Your task to perform on an android device: toggle show notifications on the lock screen Image 0: 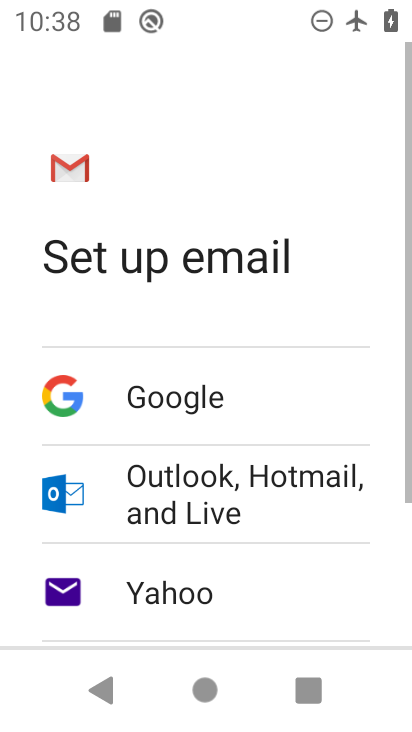
Step 0: press home button
Your task to perform on an android device: toggle show notifications on the lock screen Image 1: 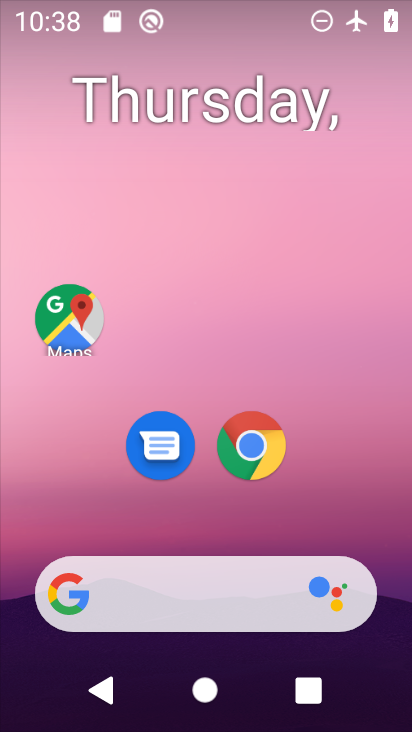
Step 1: drag from (220, 538) to (148, 6)
Your task to perform on an android device: toggle show notifications on the lock screen Image 2: 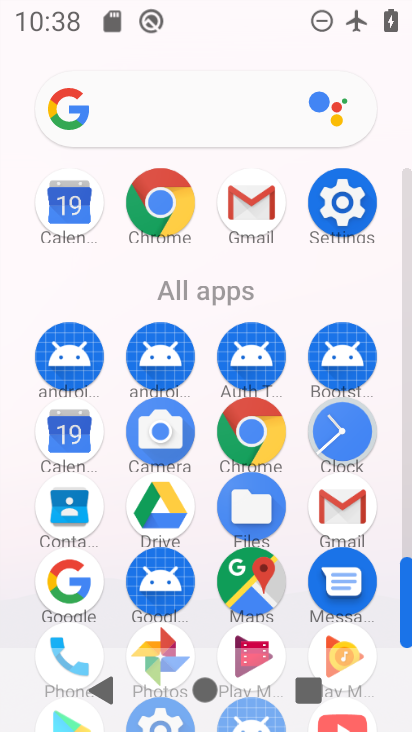
Step 2: click (350, 220)
Your task to perform on an android device: toggle show notifications on the lock screen Image 3: 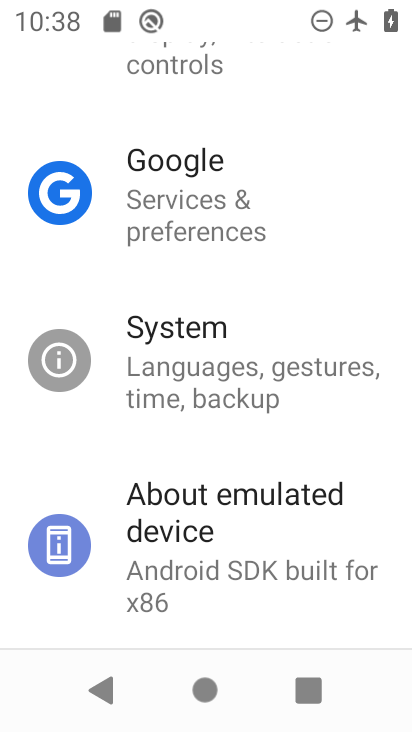
Step 3: drag from (276, 202) to (206, 601)
Your task to perform on an android device: toggle show notifications on the lock screen Image 4: 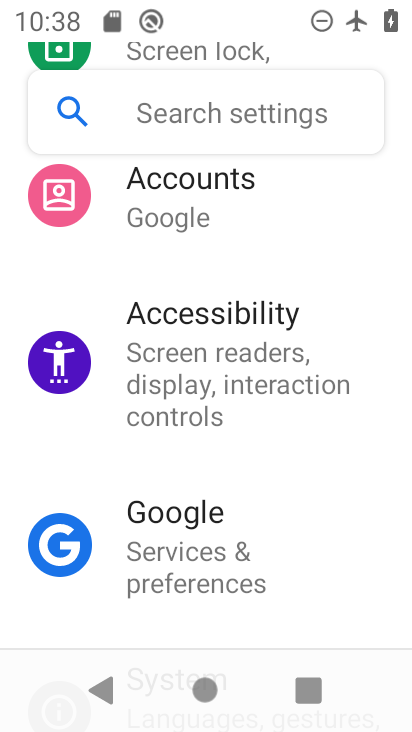
Step 4: drag from (167, 273) to (153, 643)
Your task to perform on an android device: toggle show notifications on the lock screen Image 5: 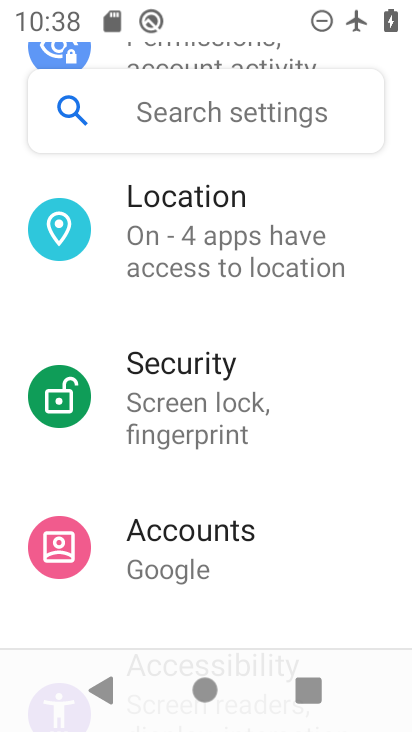
Step 5: drag from (161, 287) to (124, 673)
Your task to perform on an android device: toggle show notifications on the lock screen Image 6: 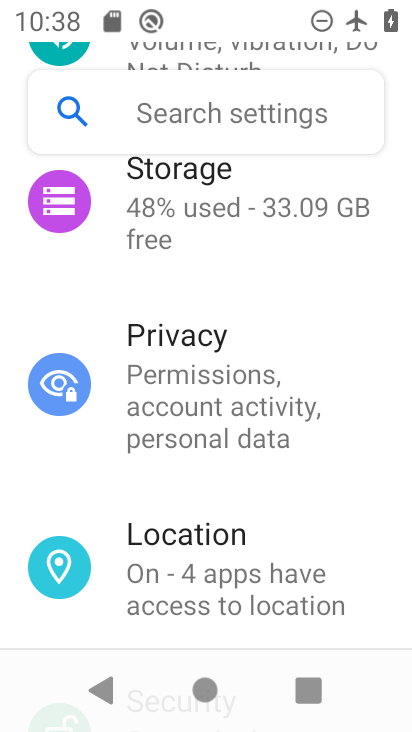
Step 6: drag from (185, 234) to (143, 583)
Your task to perform on an android device: toggle show notifications on the lock screen Image 7: 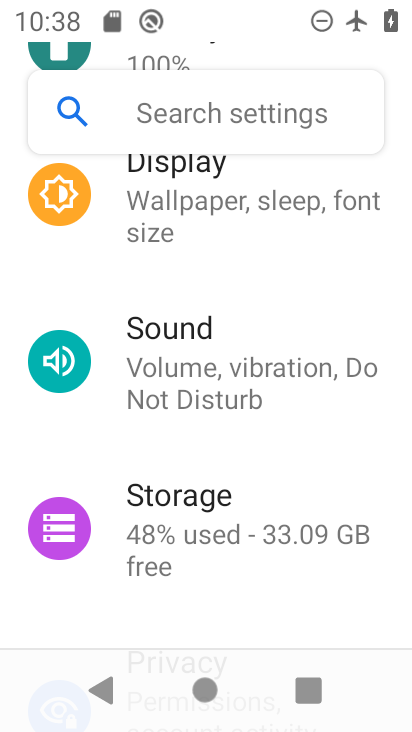
Step 7: drag from (183, 281) to (154, 731)
Your task to perform on an android device: toggle show notifications on the lock screen Image 8: 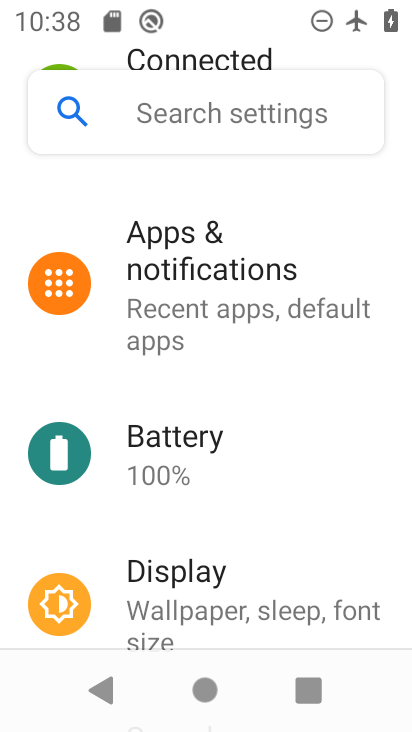
Step 8: click (219, 346)
Your task to perform on an android device: toggle show notifications on the lock screen Image 9: 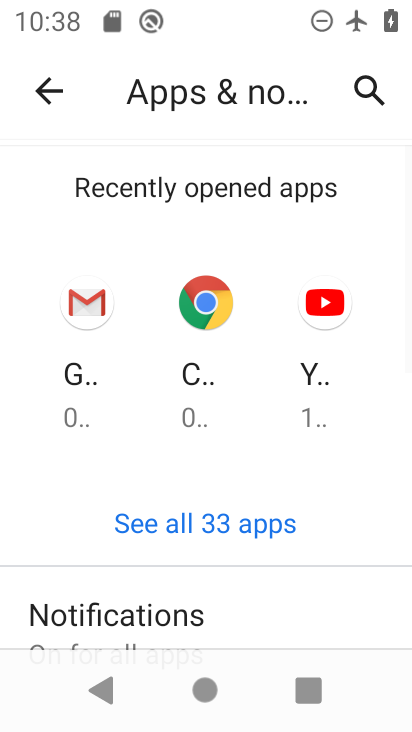
Step 9: click (196, 611)
Your task to perform on an android device: toggle show notifications on the lock screen Image 10: 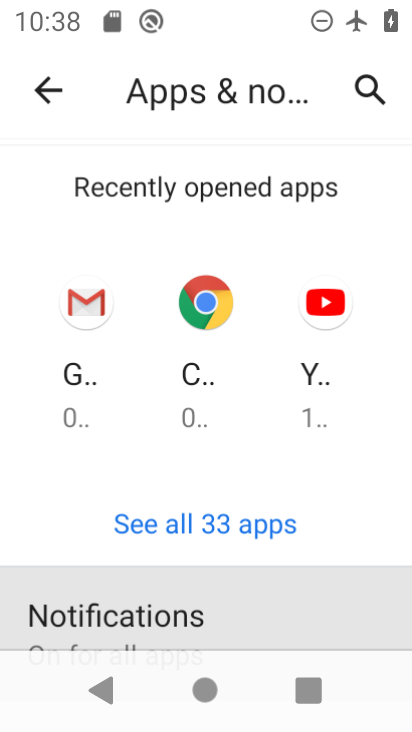
Step 10: drag from (196, 611) to (133, 103)
Your task to perform on an android device: toggle show notifications on the lock screen Image 11: 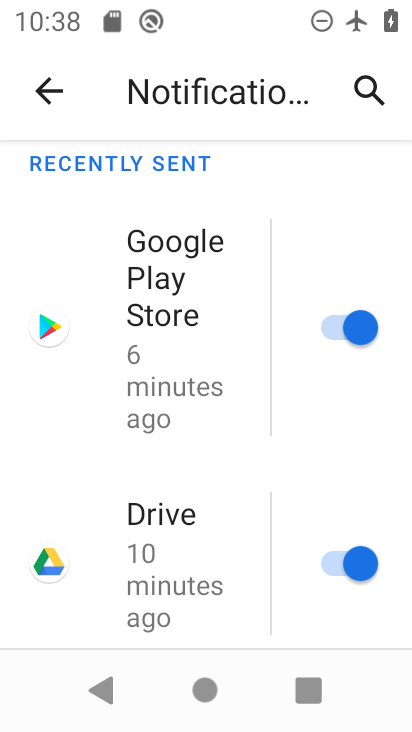
Step 11: drag from (192, 511) to (150, 79)
Your task to perform on an android device: toggle show notifications on the lock screen Image 12: 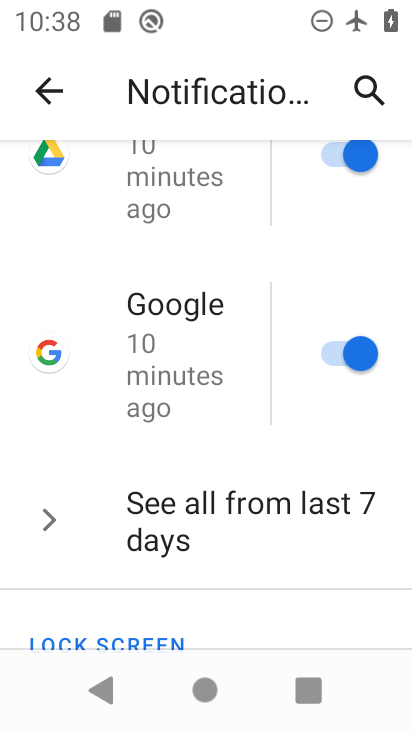
Step 12: click (196, 522)
Your task to perform on an android device: toggle show notifications on the lock screen Image 13: 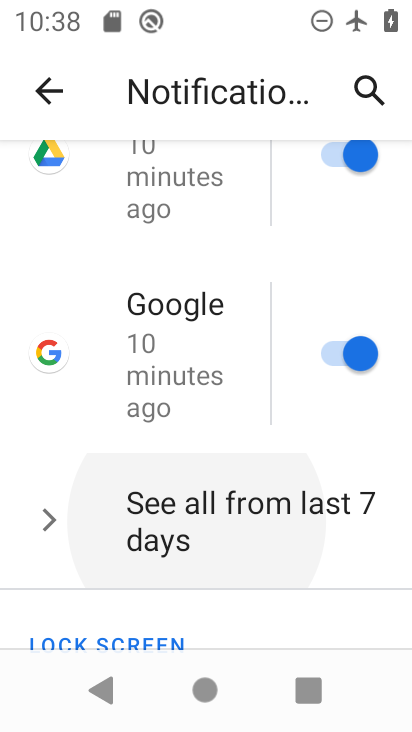
Step 13: drag from (196, 522) to (183, 210)
Your task to perform on an android device: toggle show notifications on the lock screen Image 14: 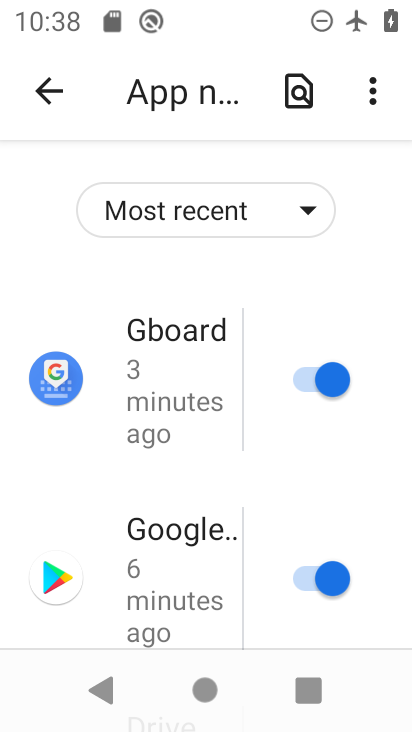
Step 14: click (66, 86)
Your task to perform on an android device: toggle show notifications on the lock screen Image 15: 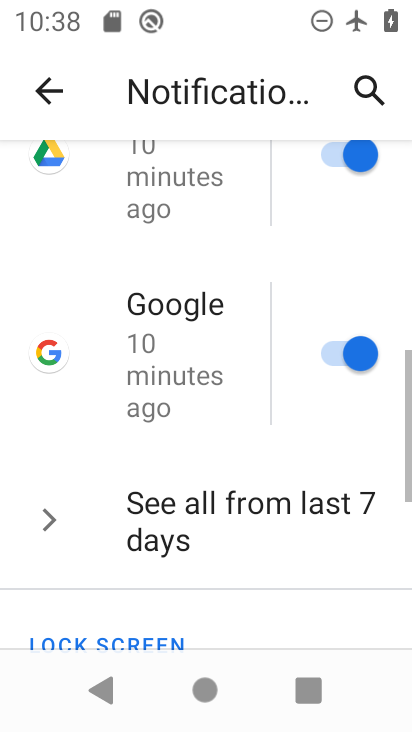
Step 15: drag from (212, 588) to (209, 269)
Your task to perform on an android device: toggle show notifications on the lock screen Image 16: 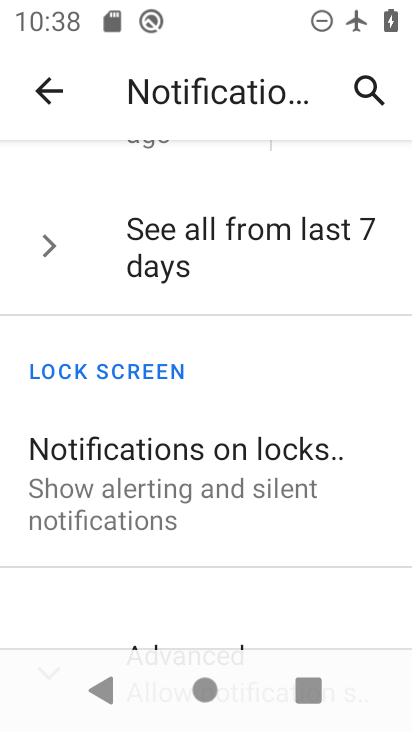
Step 16: click (224, 459)
Your task to perform on an android device: toggle show notifications on the lock screen Image 17: 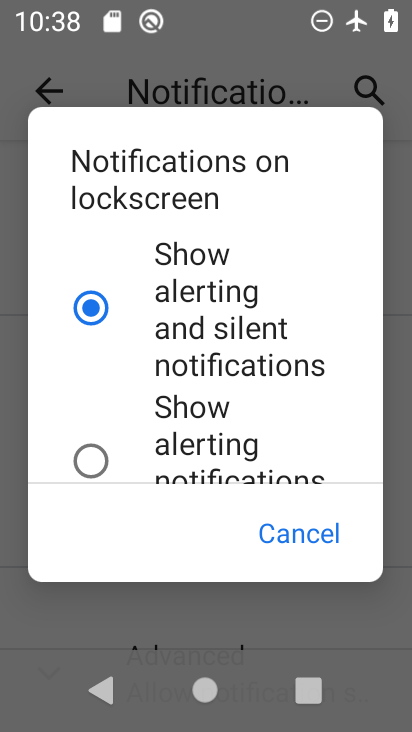
Step 17: task complete